Your task to perform on an android device: Install the Starbucks app Image 0: 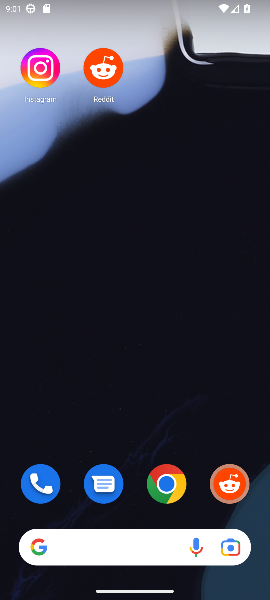
Step 0: drag from (149, 540) to (163, 115)
Your task to perform on an android device: Install the Starbucks app Image 1: 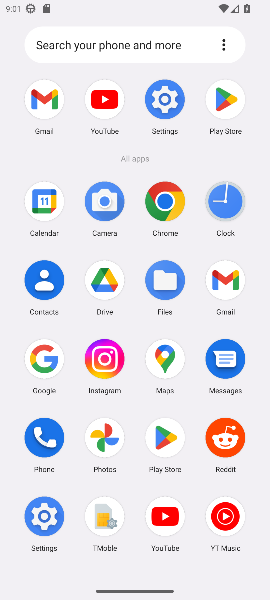
Step 1: click (227, 102)
Your task to perform on an android device: Install the Starbucks app Image 2: 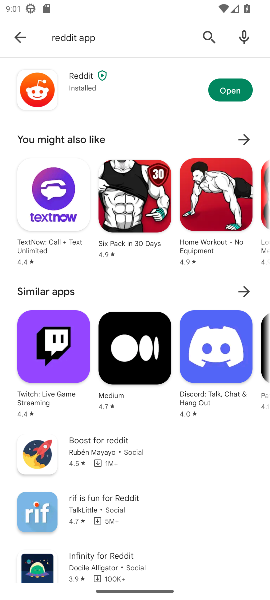
Step 2: click (205, 37)
Your task to perform on an android device: Install the Starbucks app Image 3: 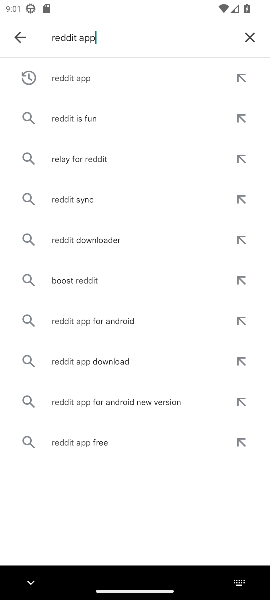
Step 3: click (250, 36)
Your task to perform on an android device: Install the Starbucks app Image 4: 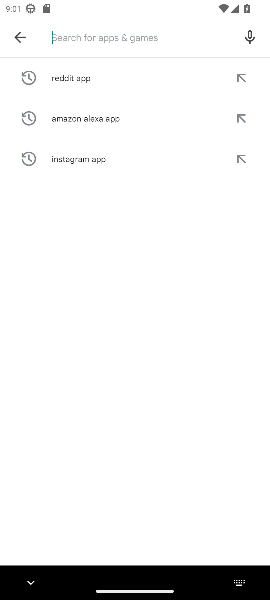
Step 4: type "Starbucks app"
Your task to perform on an android device: Install the Starbucks app Image 5: 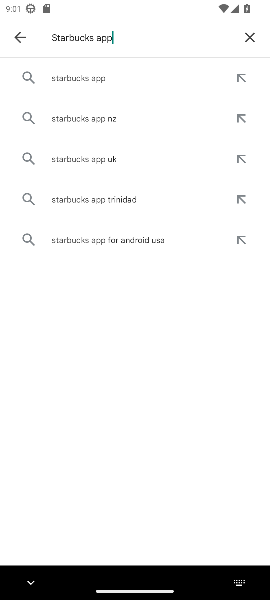
Step 5: click (75, 80)
Your task to perform on an android device: Install the Starbucks app Image 6: 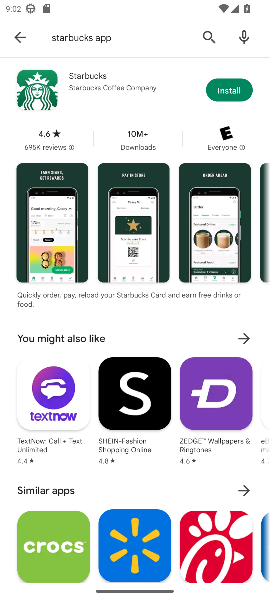
Step 6: click (228, 93)
Your task to perform on an android device: Install the Starbucks app Image 7: 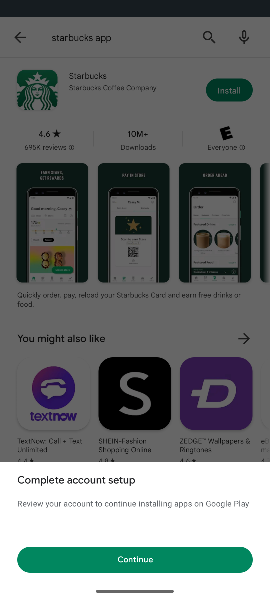
Step 7: click (127, 559)
Your task to perform on an android device: Install the Starbucks app Image 8: 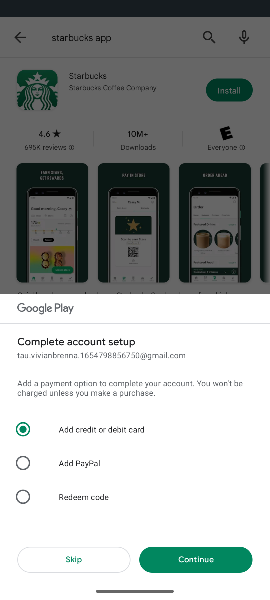
Step 8: click (76, 561)
Your task to perform on an android device: Install the Starbucks app Image 9: 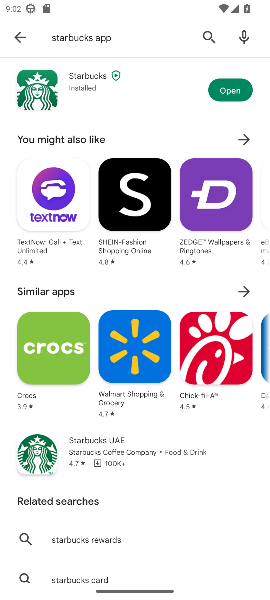
Step 9: task complete